Your task to perform on an android device: open app "Viber Messenger" Image 0: 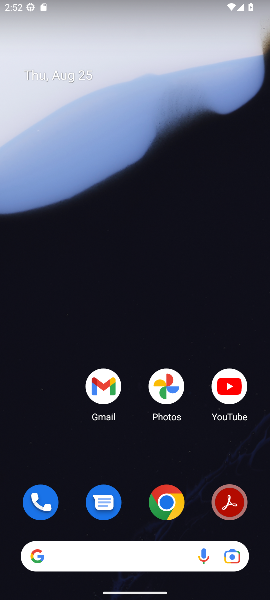
Step 0: drag from (133, 283) to (155, 23)
Your task to perform on an android device: open app "Viber Messenger" Image 1: 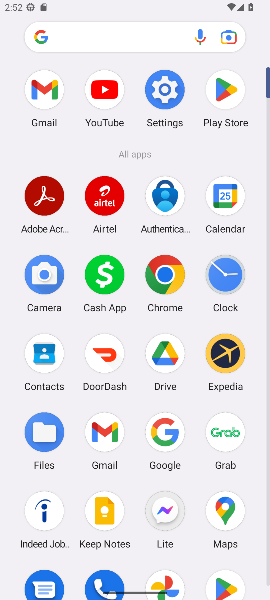
Step 1: click (210, 122)
Your task to perform on an android device: open app "Viber Messenger" Image 2: 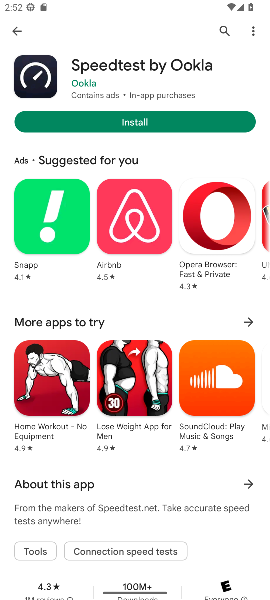
Step 2: click (221, 25)
Your task to perform on an android device: open app "Viber Messenger" Image 3: 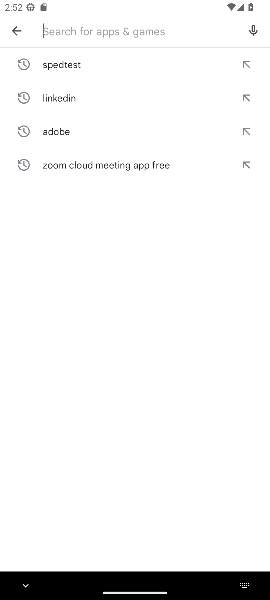
Step 3: type "viber"
Your task to perform on an android device: open app "Viber Messenger" Image 4: 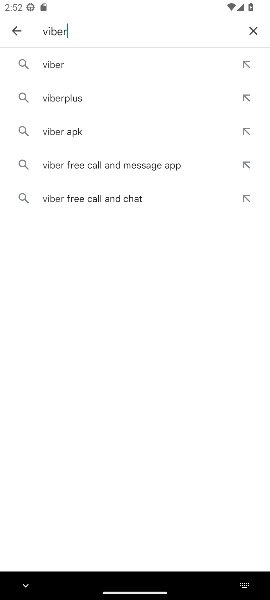
Step 4: click (90, 74)
Your task to perform on an android device: open app "Viber Messenger" Image 5: 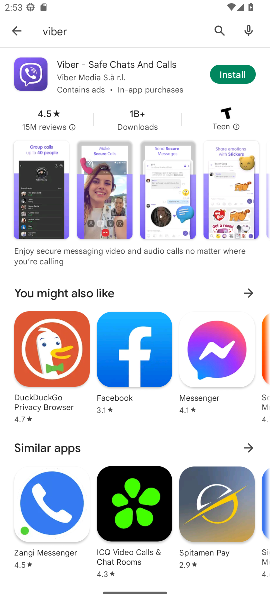
Step 5: click (221, 76)
Your task to perform on an android device: open app "Viber Messenger" Image 6: 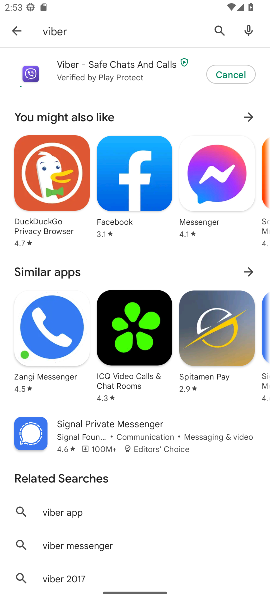
Step 6: task complete